Your task to perform on an android device: Turn off the flashlight Image 0: 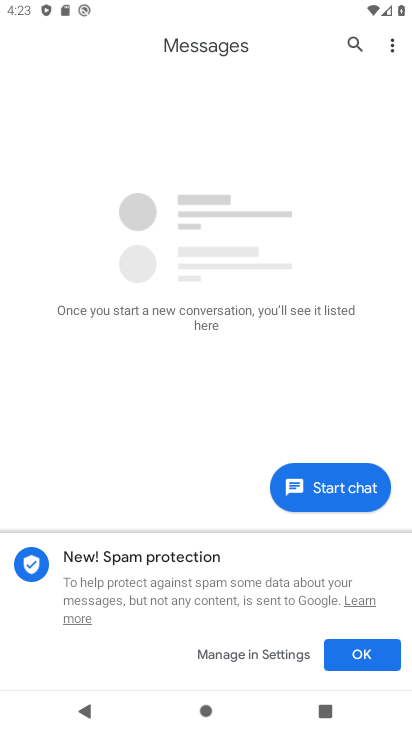
Step 0: press home button
Your task to perform on an android device: Turn off the flashlight Image 1: 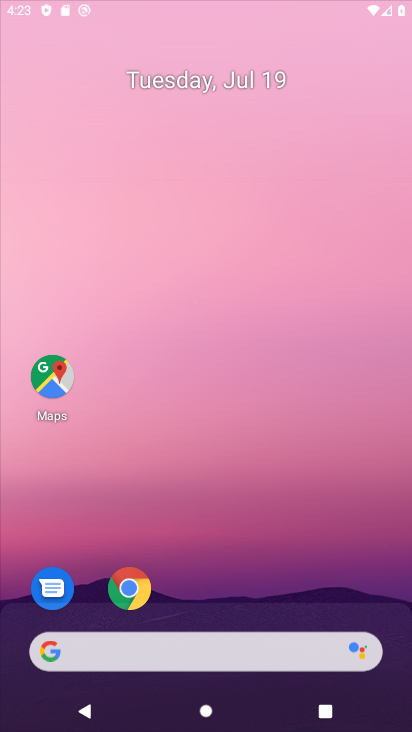
Step 1: task complete